Your task to perform on an android device: install app "Grab" Image 0: 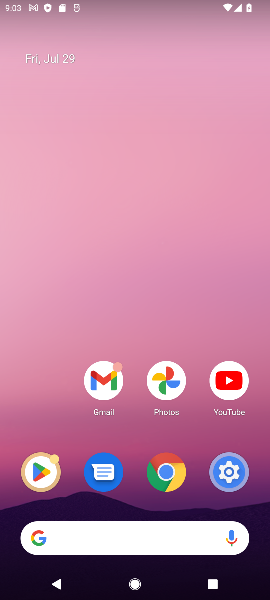
Step 0: click (73, 58)
Your task to perform on an android device: install app "Grab" Image 1: 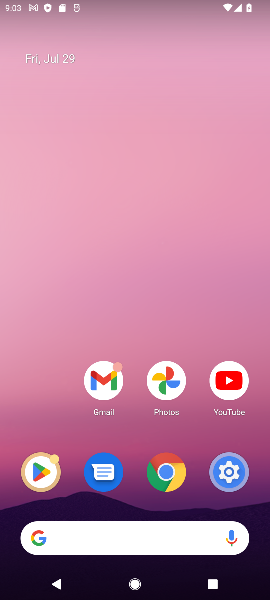
Step 1: drag from (151, 290) to (74, 87)
Your task to perform on an android device: install app "Grab" Image 2: 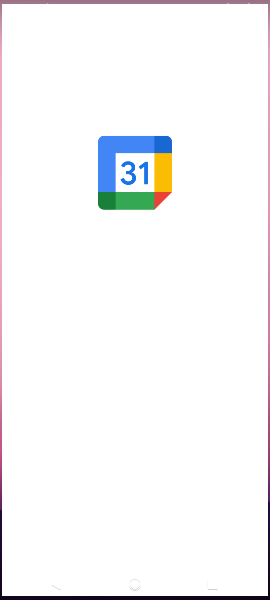
Step 2: drag from (162, 557) to (104, 181)
Your task to perform on an android device: install app "Grab" Image 3: 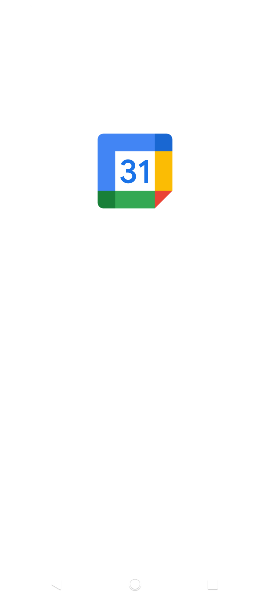
Step 3: click (119, 149)
Your task to perform on an android device: install app "Grab" Image 4: 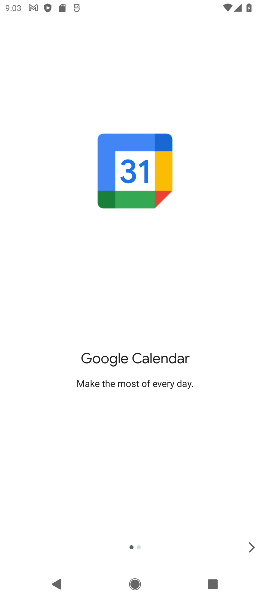
Step 4: click (105, 41)
Your task to perform on an android device: install app "Grab" Image 5: 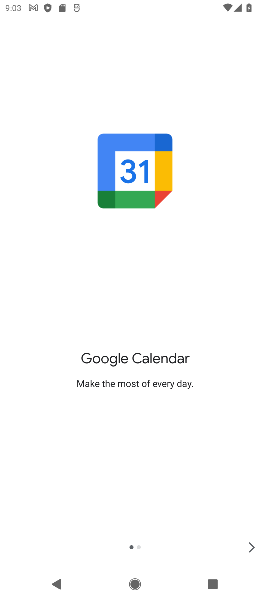
Step 5: click (253, 545)
Your task to perform on an android device: install app "Grab" Image 6: 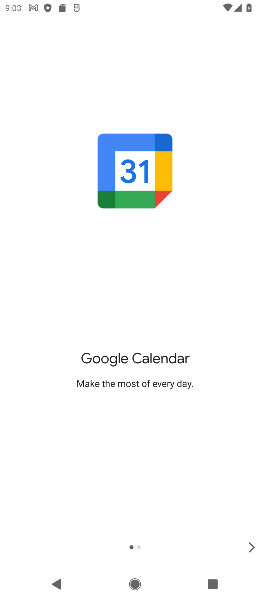
Step 6: click (253, 540)
Your task to perform on an android device: install app "Grab" Image 7: 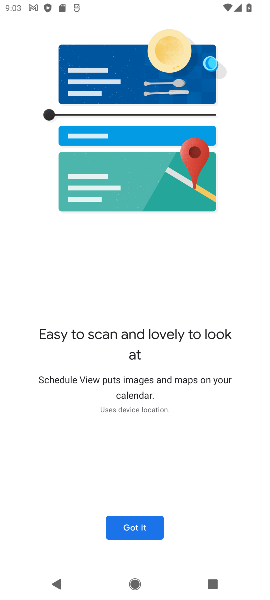
Step 7: click (131, 523)
Your task to perform on an android device: install app "Grab" Image 8: 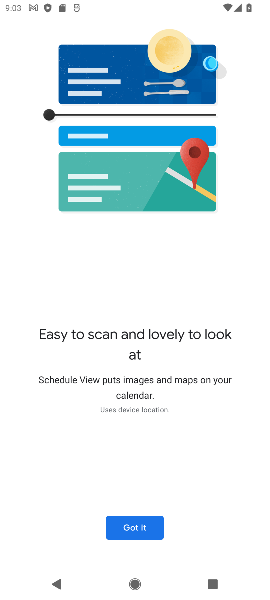
Step 8: click (136, 530)
Your task to perform on an android device: install app "Grab" Image 9: 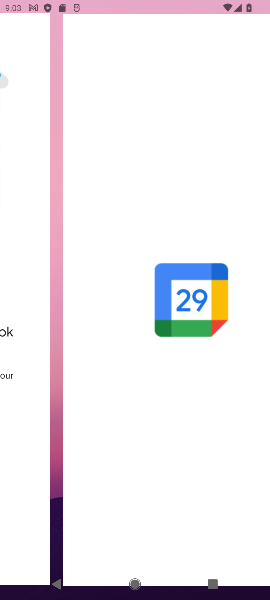
Step 9: press back button
Your task to perform on an android device: install app "Grab" Image 10: 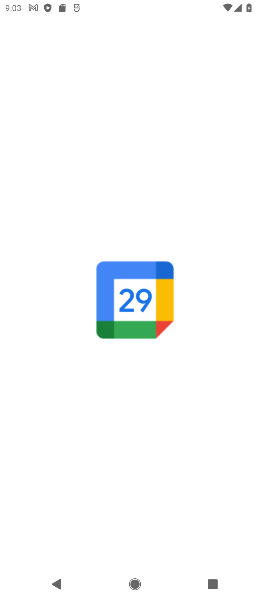
Step 10: press back button
Your task to perform on an android device: install app "Grab" Image 11: 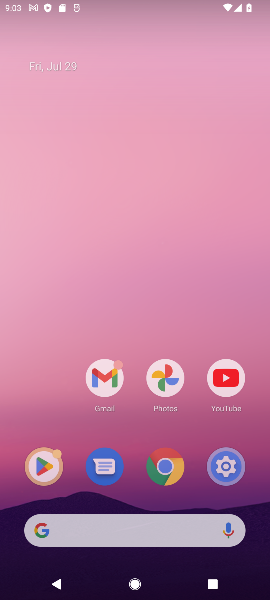
Step 11: press back button
Your task to perform on an android device: install app "Grab" Image 12: 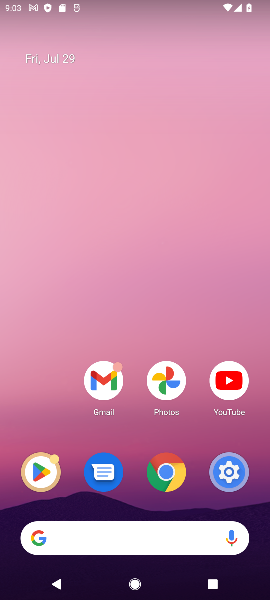
Step 12: press back button
Your task to perform on an android device: install app "Grab" Image 13: 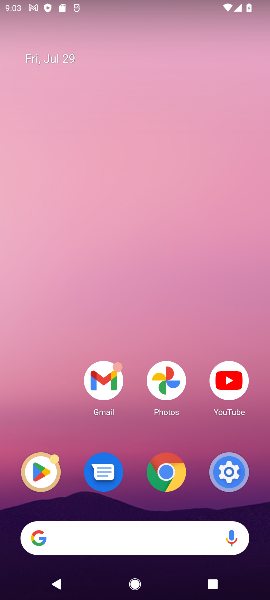
Step 13: drag from (198, 489) to (48, 13)
Your task to perform on an android device: install app "Grab" Image 14: 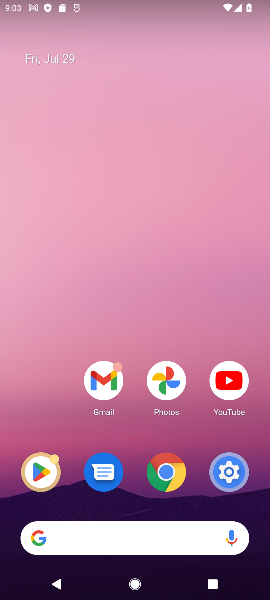
Step 14: drag from (161, 394) to (107, 60)
Your task to perform on an android device: install app "Grab" Image 15: 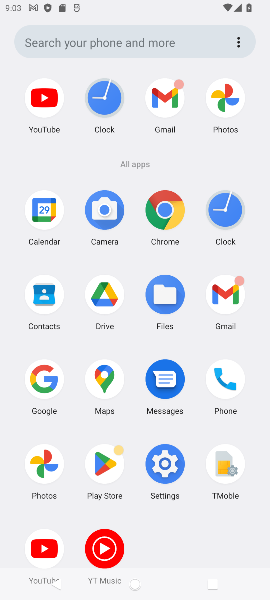
Step 15: drag from (132, 369) to (80, 79)
Your task to perform on an android device: install app "Grab" Image 16: 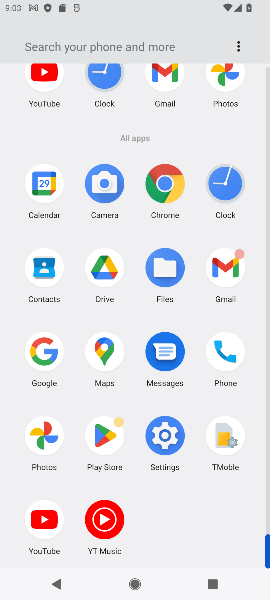
Step 16: click (98, 436)
Your task to perform on an android device: install app "Grab" Image 17: 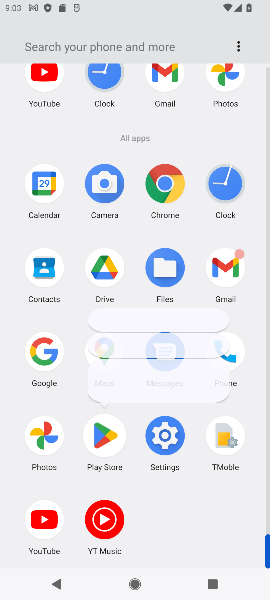
Step 17: click (99, 441)
Your task to perform on an android device: install app "Grab" Image 18: 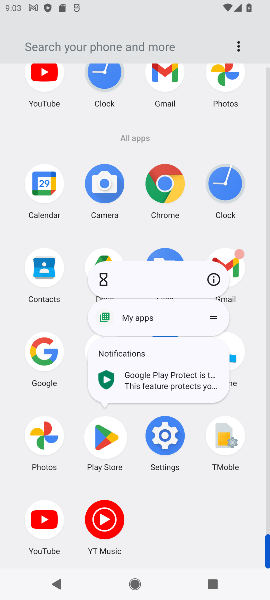
Step 18: click (106, 431)
Your task to perform on an android device: install app "Grab" Image 19: 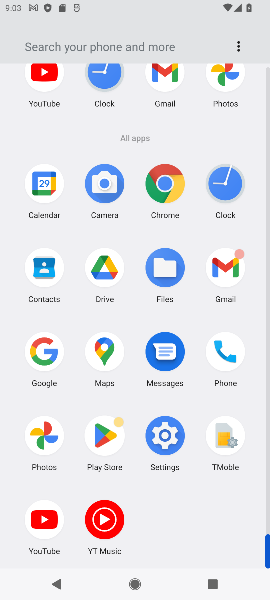
Step 19: click (106, 431)
Your task to perform on an android device: install app "Grab" Image 20: 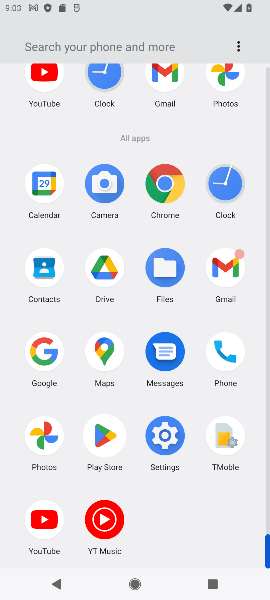
Step 20: click (105, 432)
Your task to perform on an android device: install app "Grab" Image 21: 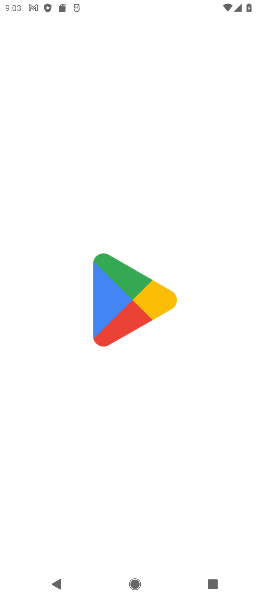
Step 21: click (118, 430)
Your task to perform on an android device: install app "Grab" Image 22: 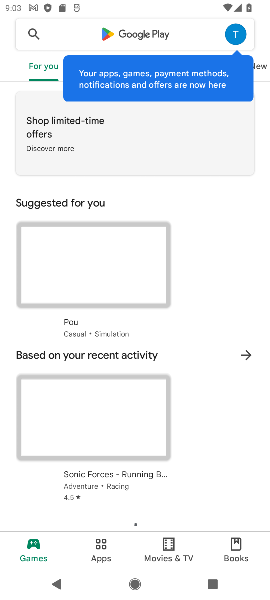
Step 22: click (65, 32)
Your task to perform on an android device: install app "Grab" Image 23: 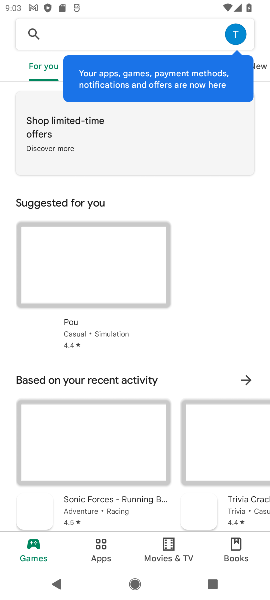
Step 23: click (65, 32)
Your task to perform on an android device: install app "Grab" Image 24: 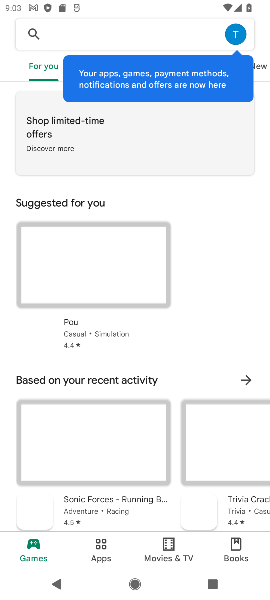
Step 24: click (64, 31)
Your task to perform on an android device: install app "Grab" Image 25: 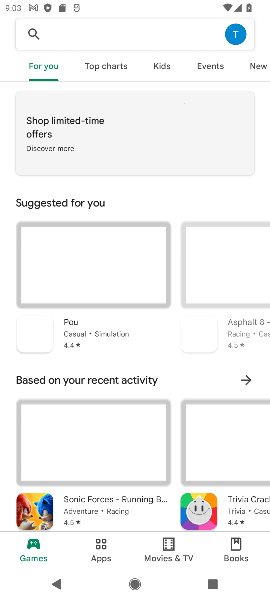
Step 25: click (64, 31)
Your task to perform on an android device: install app "Grab" Image 26: 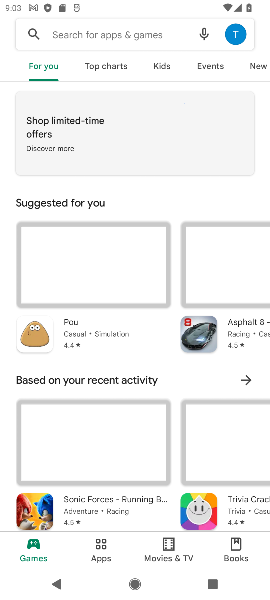
Step 26: click (64, 31)
Your task to perform on an android device: install app "Grab" Image 27: 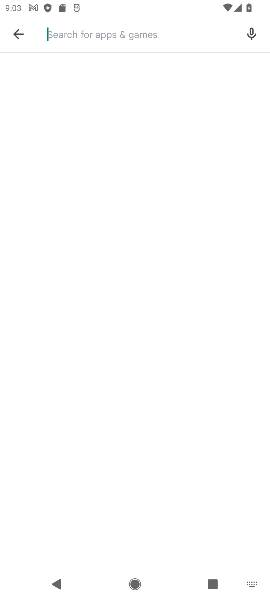
Step 27: click (66, 38)
Your task to perform on an android device: install app "Grab" Image 28: 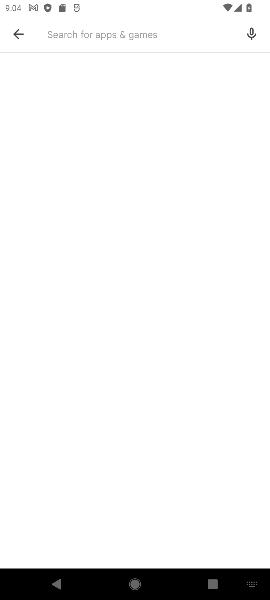
Step 28: type "Grab"
Your task to perform on an android device: install app "Grab" Image 29: 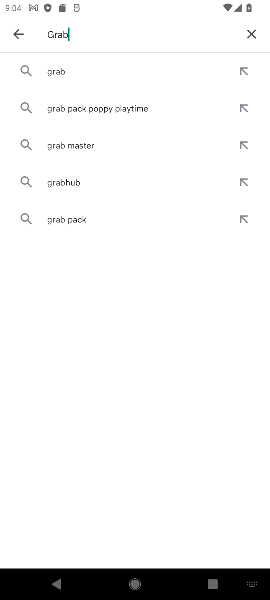
Step 29: click (62, 68)
Your task to perform on an android device: install app "Grab" Image 30: 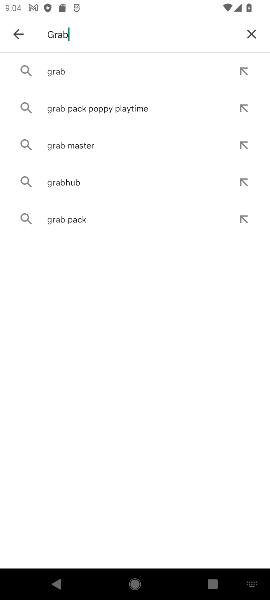
Step 30: click (65, 70)
Your task to perform on an android device: install app "Grab" Image 31: 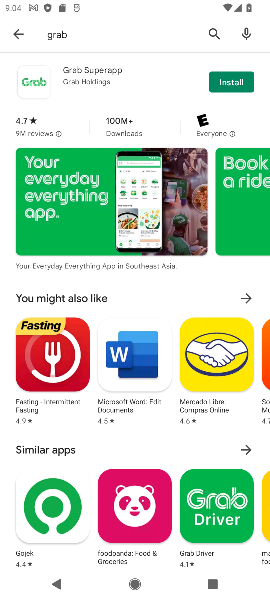
Step 31: click (224, 76)
Your task to perform on an android device: install app "Grab" Image 32: 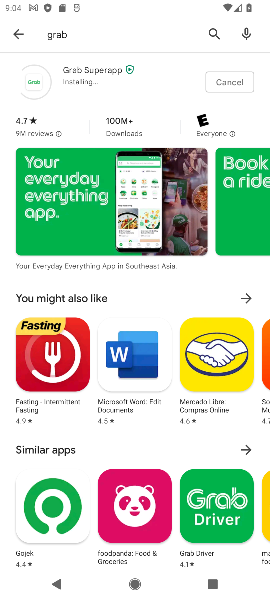
Step 32: click (230, 80)
Your task to perform on an android device: install app "Grab" Image 33: 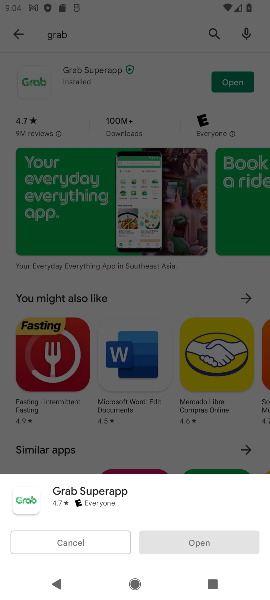
Step 33: click (85, 546)
Your task to perform on an android device: install app "Grab" Image 34: 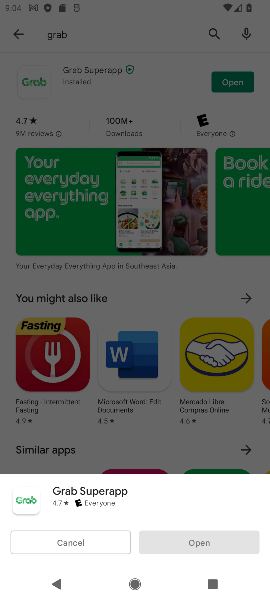
Step 34: click (85, 546)
Your task to perform on an android device: install app "Grab" Image 35: 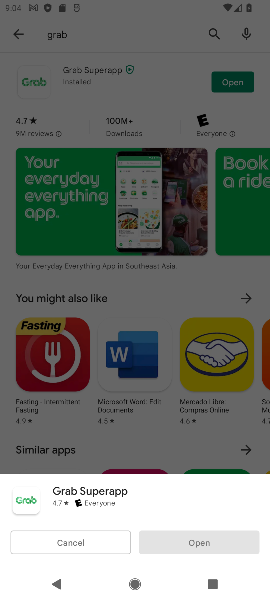
Step 35: click (85, 546)
Your task to perform on an android device: install app "Grab" Image 36: 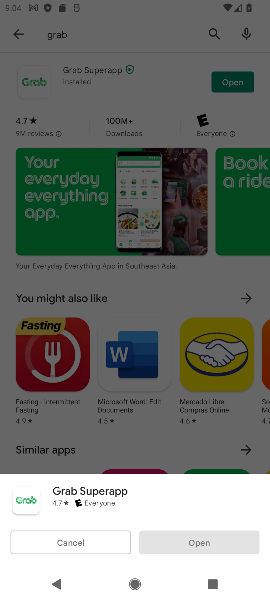
Step 36: click (86, 545)
Your task to perform on an android device: install app "Grab" Image 37: 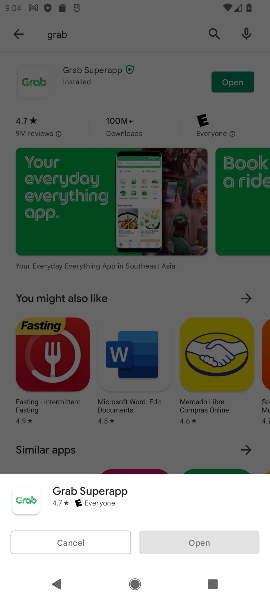
Step 37: click (87, 545)
Your task to perform on an android device: install app "Grab" Image 38: 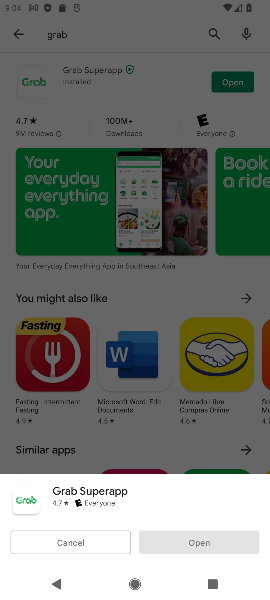
Step 38: click (86, 543)
Your task to perform on an android device: install app "Grab" Image 39: 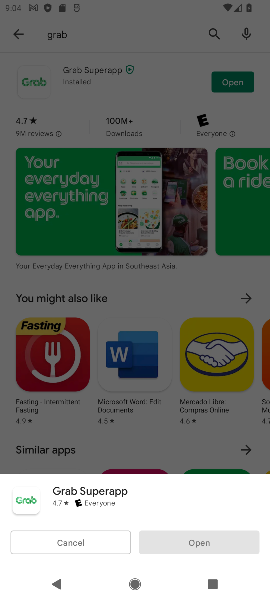
Step 39: click (200, 557)
Your task to perform on an android device: install app "Grab" Image 40: 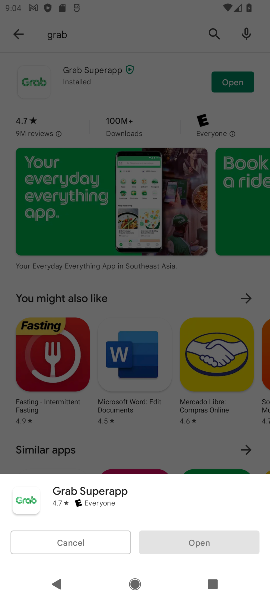
Step 40: click (126, 148)
Your task to perform on an android device: install app "Grab" Image 41: 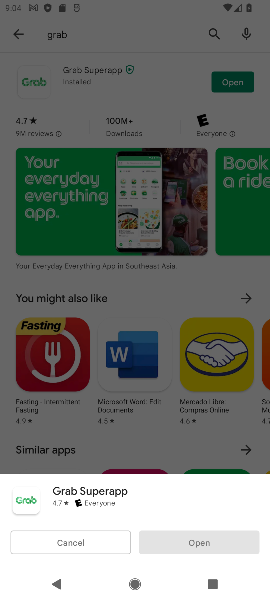
Step 41: click (133, 149)
Your task to perform on an android device: install app "Grab" Image 42: 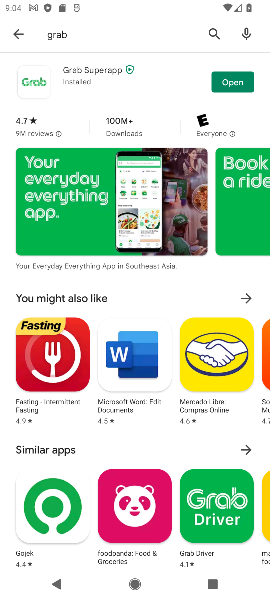
Step 42: click (126, 235)
Your task to perform on an android device: install app "Grab" Image 43: 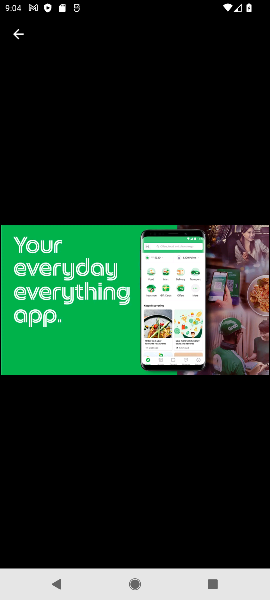
Step 43: click (233, 70)
Your task to perform on an android device: install app "Grab" Image 44: 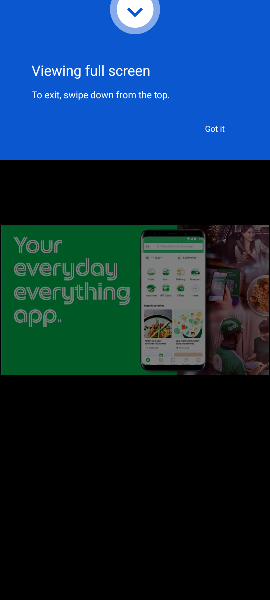
Step 44: task complete